Your task to perform on an android device: open app "Yahoo Mail" (install if not already installed), go to login, and select forgot password Image 0: 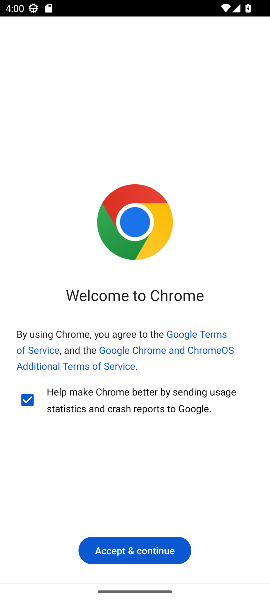
Step 0: press home button
Your task to perform on an android device: open app "Yahoo Mail" (install if not already installed), go to login, and select forgot password Image 1: 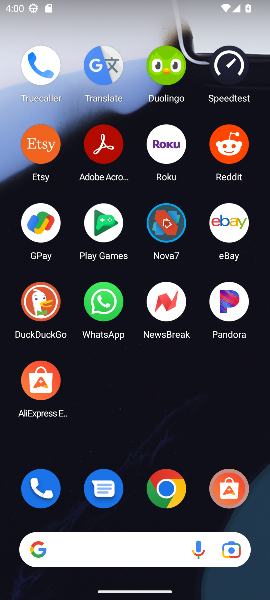
Step 1: drag from (132, 525) to (135, 82)
Your task to perform on an android device: open app "Yahoo Mail" (install if not already installed), go to login, and select forgot password Image 2: 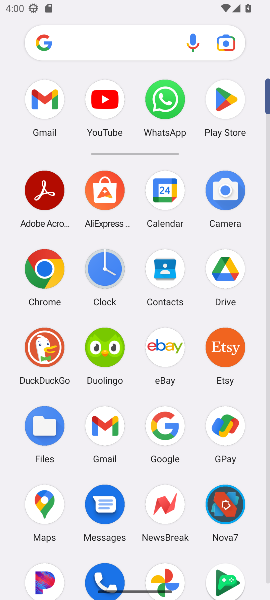
Step 2: click (215, 105)
Your task to perform on an android device: open app "Yahoo Mail" (install if not already installed), go to login, and select forgot password Image 3: 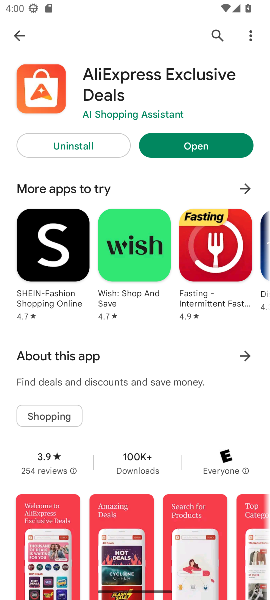
Step 3: click (214, 31)
Your task to perform on an android device: open app "Yahoo Mail" (install if not already installed), go to login, and select forgot password Image 4: 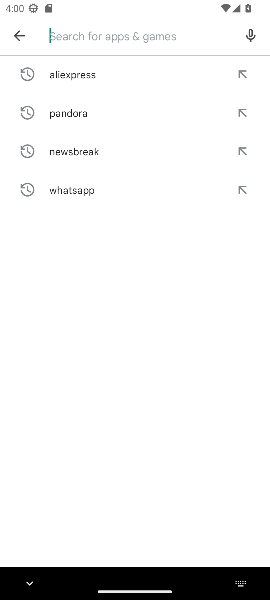
Step 4: type "yahoo maill"
Your task to perform on an android device: open app "Yahoo Mail" (install if not already installed), go to login, and select forgot password Image 5: 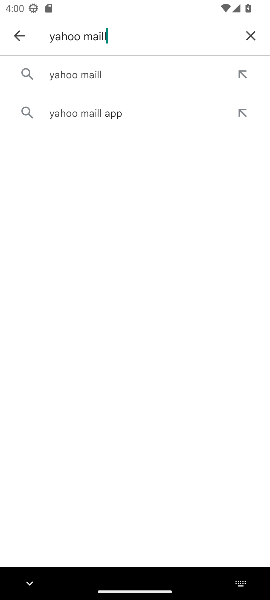
Step 5: click (91, 82)
Your task to perform on an android device: open app "Yahoo Mail" (install if not already installed), go to login, and select forgot password Image 6: 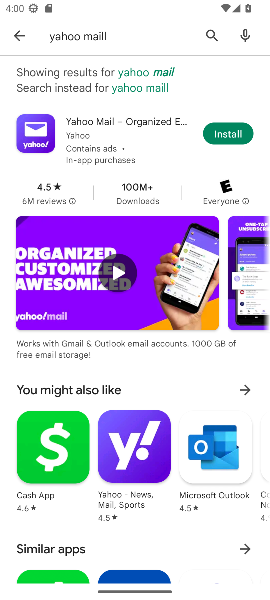
Step 6: click (219, 142)
Your task to perform on an android device: open app "Yahoo Mail" (install if not already installed), go to login, and select forgot password Image 7: 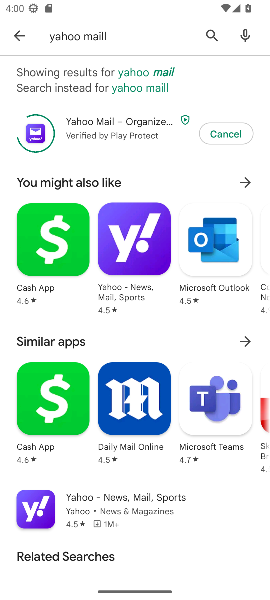
Step 7: task complete